Your task to perform on an android device: Open Wikipedia Image 0: 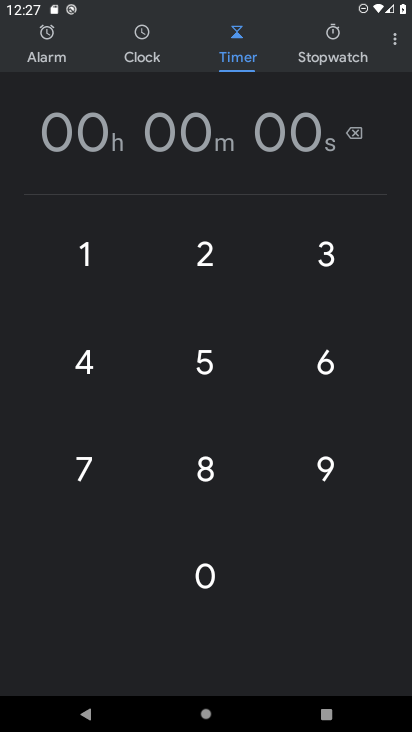
Step 0: press home button
Your task to perform on an android device: Open Wikipedia Image 1: 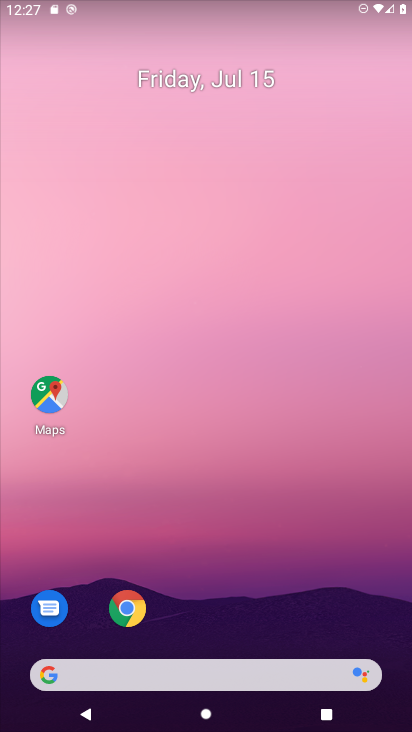
Step 1: drag from (254, 670) to (308, 3)
Your task to perform on an android device: Open Wikipedia Image 2: 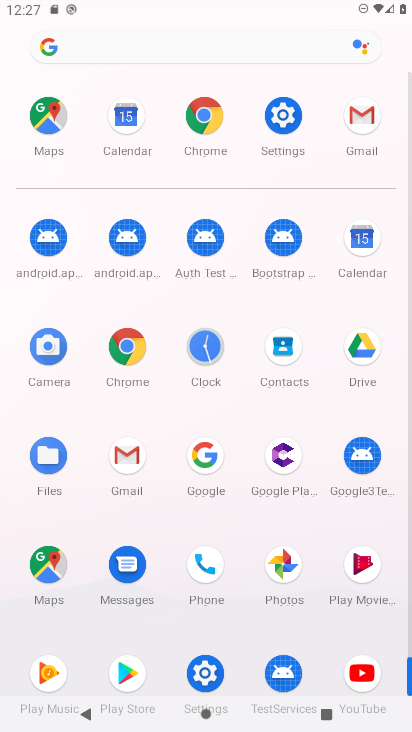
Step 2: click (142, 352)
Your task to perform on an android device: Open Wikipedia Image 3: 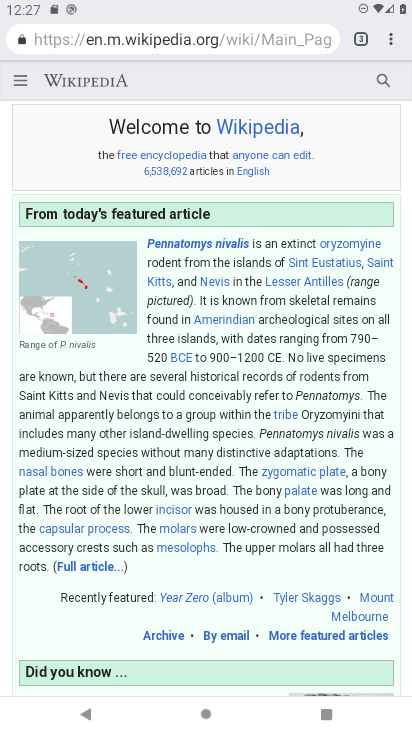
Step 3: task complete